Your task to perform on an android device: turn on location history Image 0: 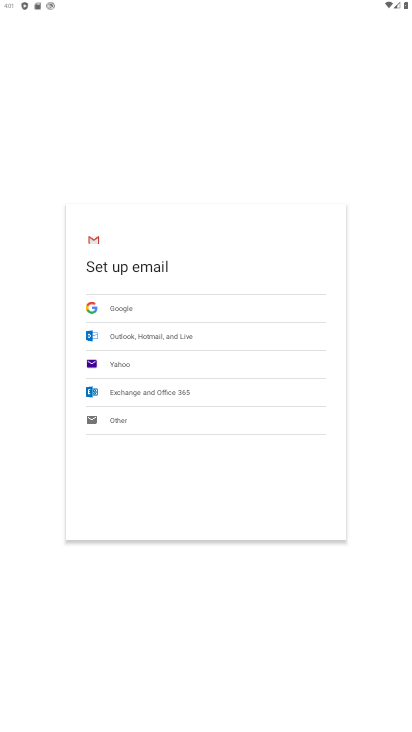
Step 0: press home button
Your task to perform on an android device: turn on location history Image 1: 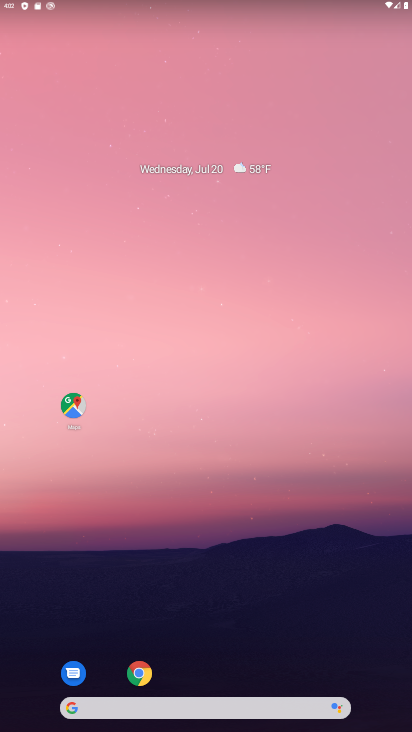
Step 1: drag from (238, 626) to (258, 213)
Your task to perform on an android device: turn on location history Image 2: 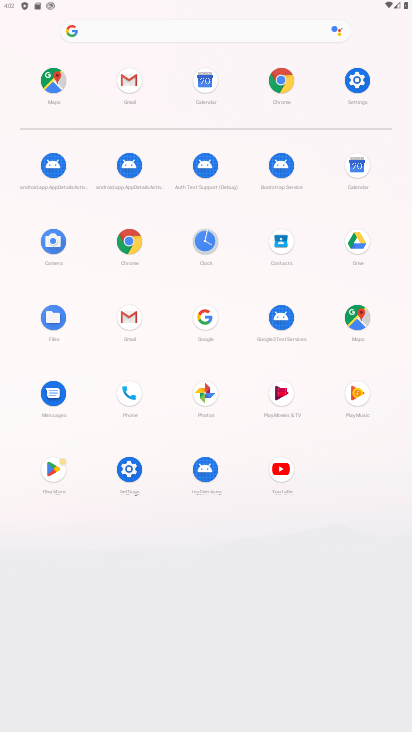
Step 2: click (125, 469)
Your task to perform on an android device: turn on location history Image 3: 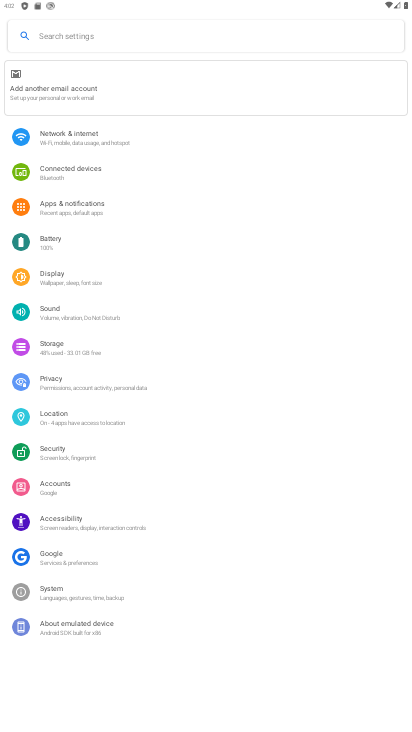
Step 3: click (48, 415)
Your task to perform on an android device: turn on location history Image 4: 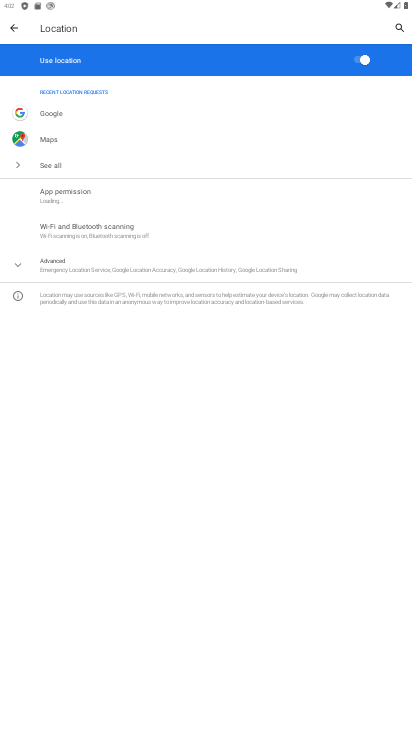
Step 4: task complete